Your task to perform on an android device: change the upload size in google photos Image 0: 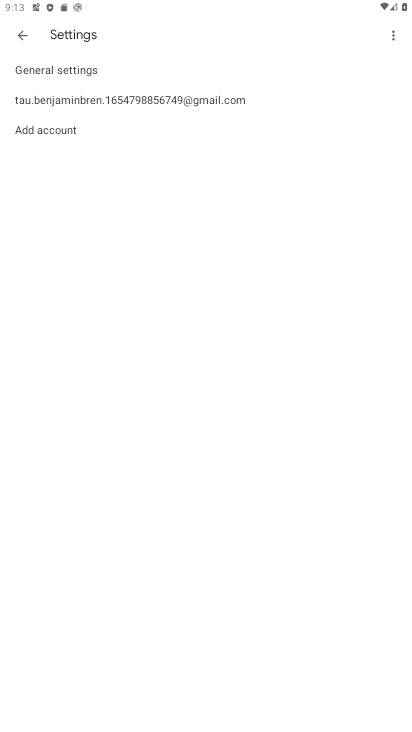
Step 0: press home button
Your task to perform on an android device: change the upload size in google photos Image 1: 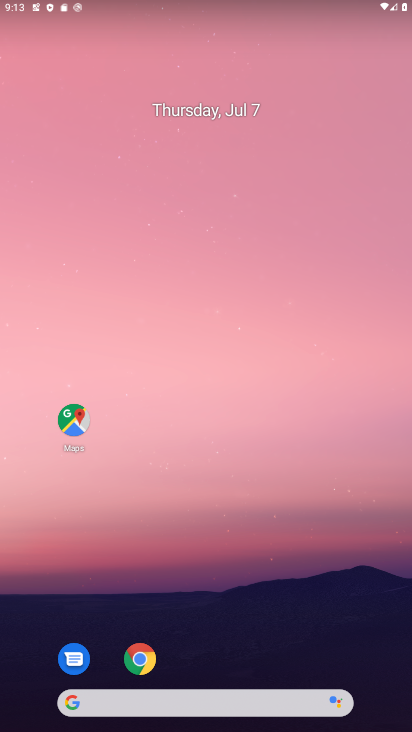
Step 1: drag from (220, 588) to (267, 2)
Your task to perform on an android device: change the upload size in google photos Image 2: 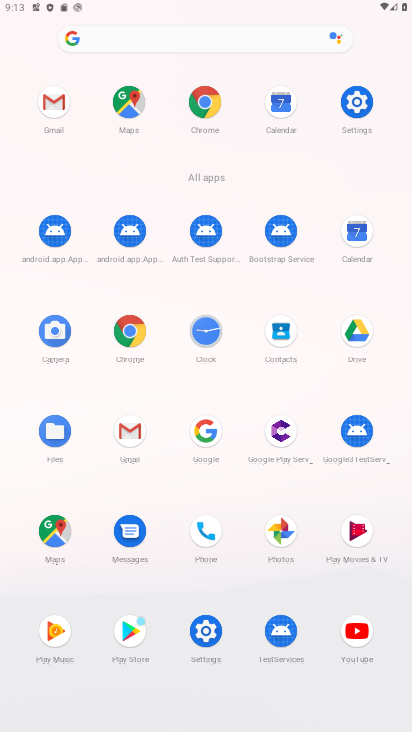
Step 2: click (280, 537)
Your task to perform on an android device: change the upload size in google photos Image 3: 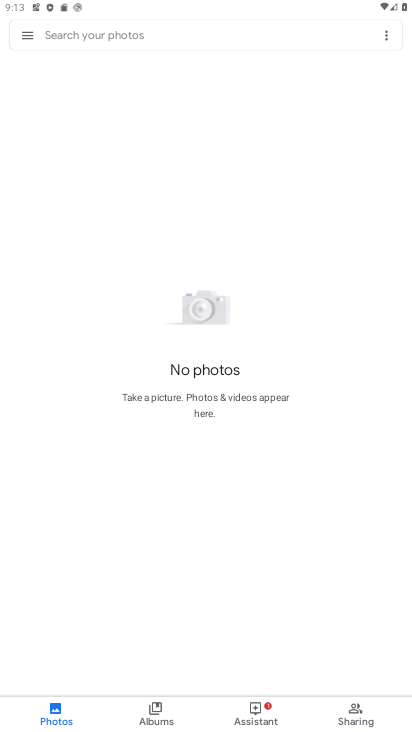
Step 3: click (22, 36)
Your task to perform on an android device: change the upload size in google photos Image 4: 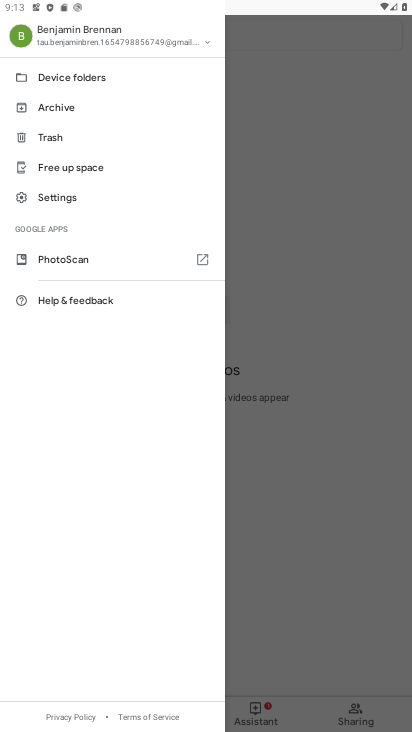
Step 4: click (66, 200)
Your task to perform on an android device: change the upload size in google photos Image 5: 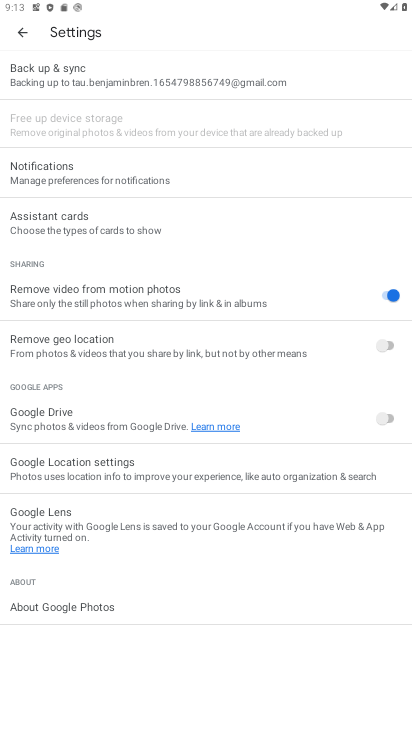
Step 5: click (127, 80)
Your task to perform on an android device: change the upload size in google photos Image 6: 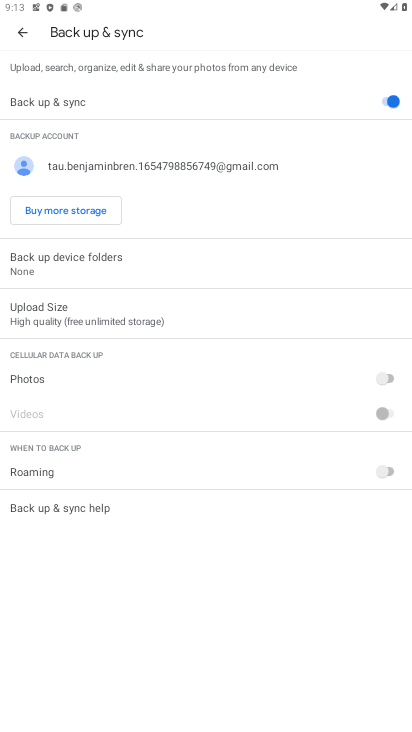
Step 6: click (156, 321)
Your task to perform on an android device: change the upload size in google photos Image 7: 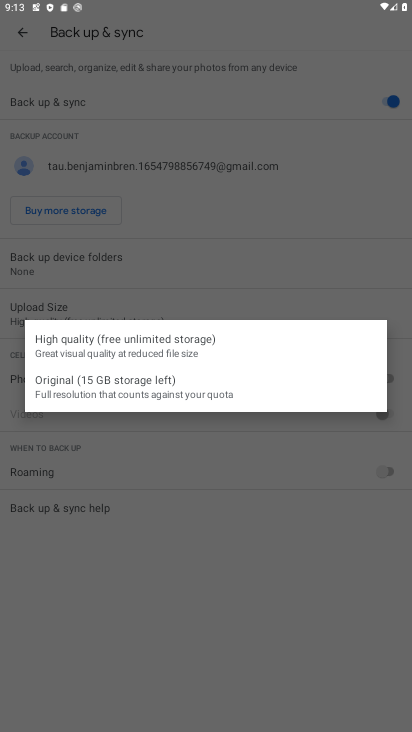
Step 7: click (135, 383)
Your task to perform on an android device: change the upload size in google photos Image 8: 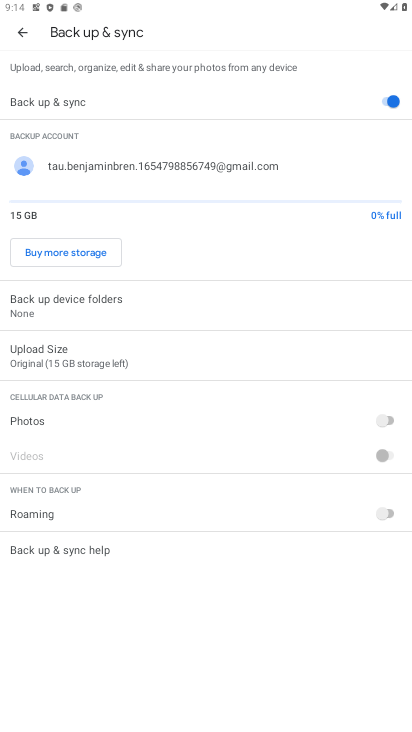
Step 8: task complete